Your task to perform on an android device: Open Youtube and go to "Your channel" Image 0: 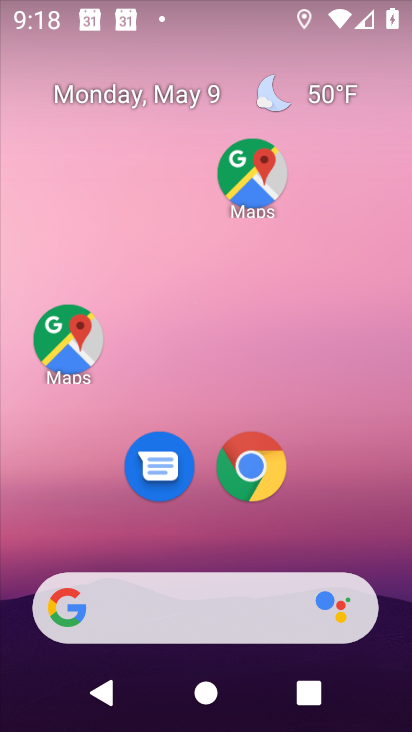
Step 0: drag from (223, 544) to (120, 51)
Your task to perform on an android device: Open Youtube and go to "Your channel" Image 1: 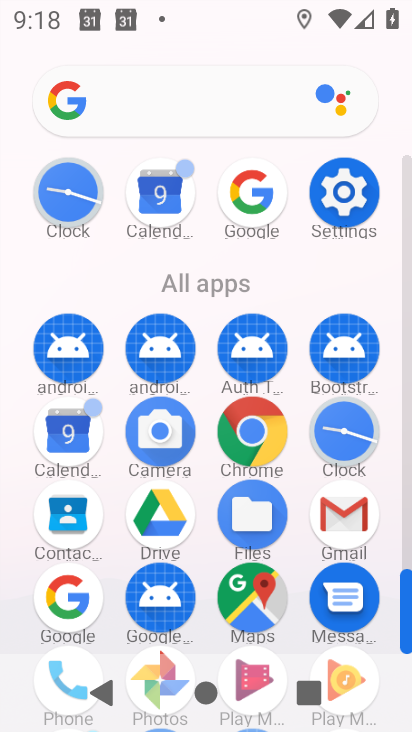
Step 1: drag from (215, 624) to (203, 330)
Your task to perform on an android device: Open Youtube and go to "Your channel" Image 2: 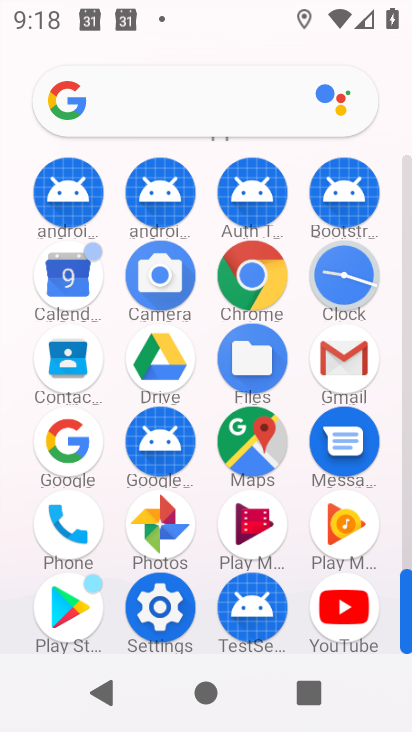
Step 2: click (327, 615)
Your task to perform on an android device: Open Youtube and go to "Your channel" Image 3: 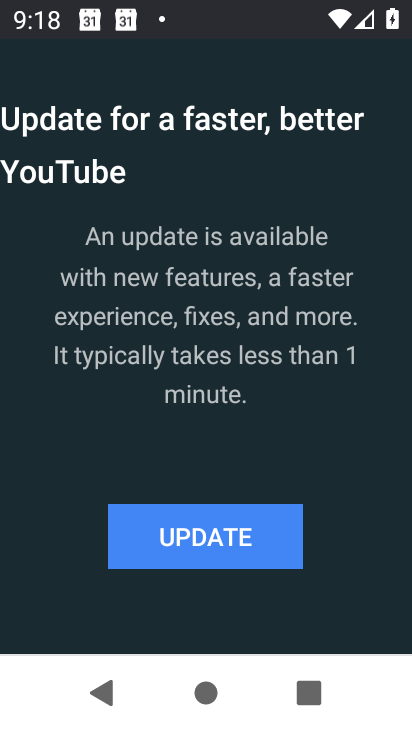
Step 3: click (199, 556)
Your task to perform on an android device: Open Youtube and go to "Your channel" Image 4: 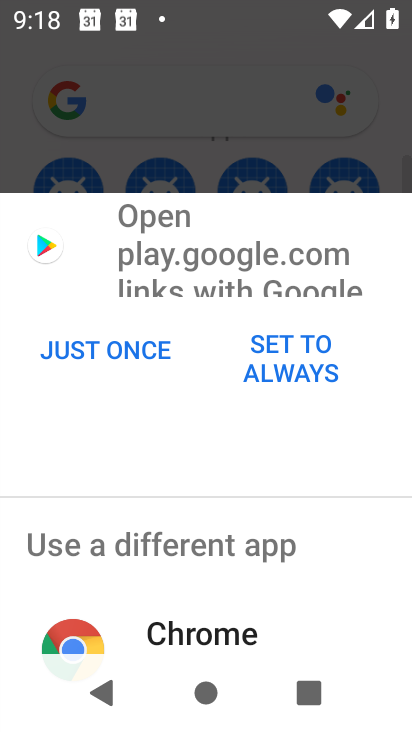
Step 4: click (77, 347)
Your task to perform on an android device: Open Youtube and go to "Your channel" Image 5: 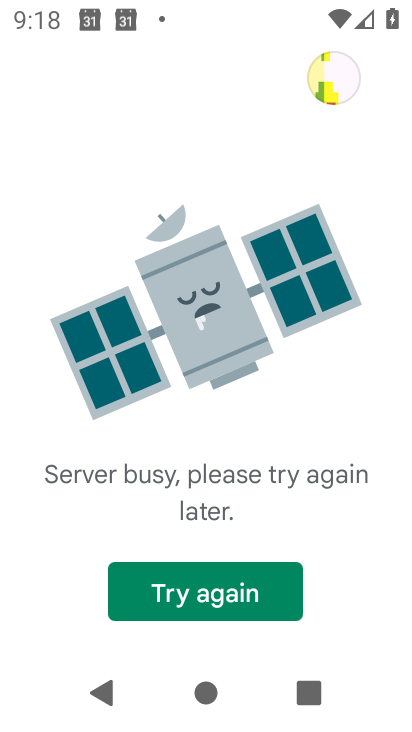
Step 5: click (222, 576)
Your task to perform on an android device: Open Youtube and go to "Your channel" Image 6: 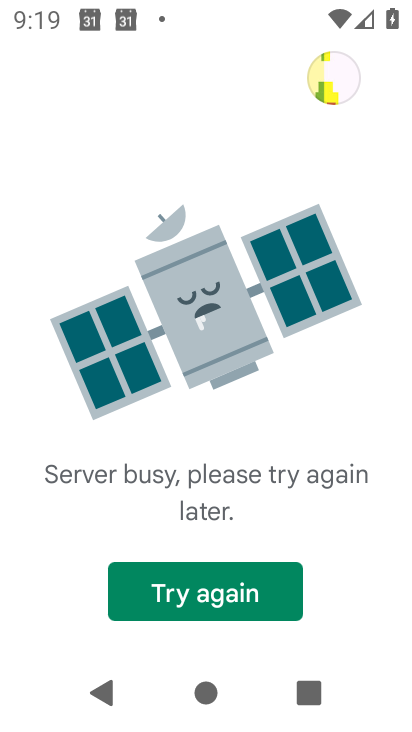
Step 6: click (201, 608)
Your task to perform on an android device: Open Youtube and go to "Your channel" Image 7: 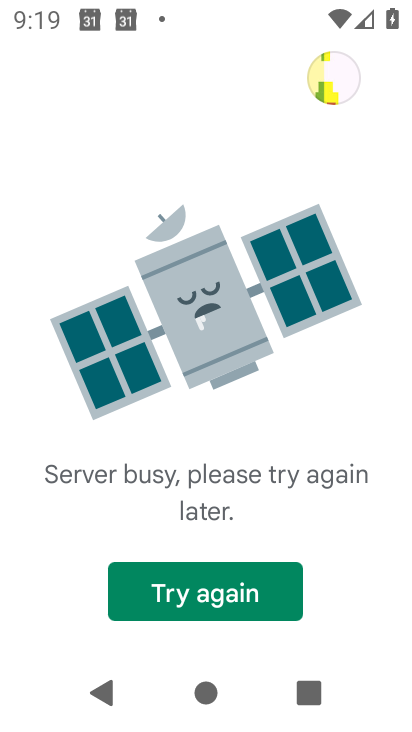
Step 7: click (197, 592)
Your task to perform on an android device: Open Youtube and go to "Your channel" Image 8: 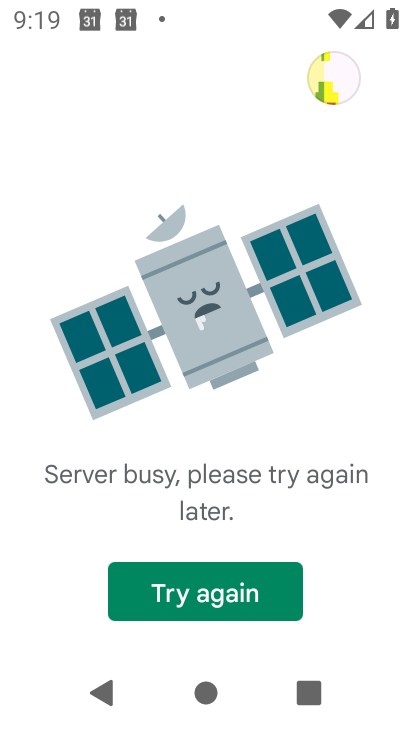
Step 8: task complete